Your task to perform on an android device: change the clock display to analog Image 0: 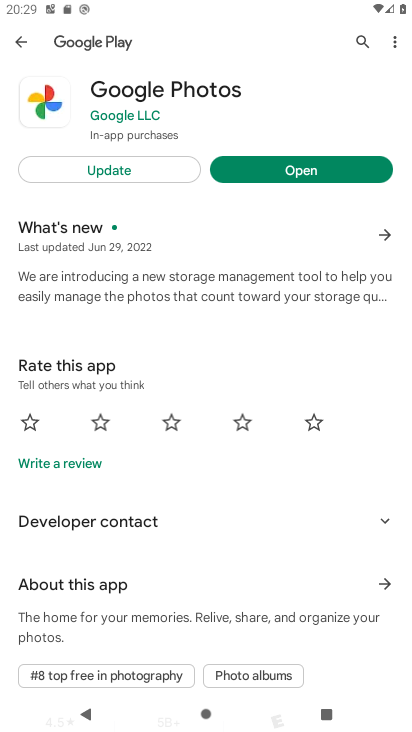
Step 0: press home button
Your task to perform on an android device: change the clock display to analog Image 1: 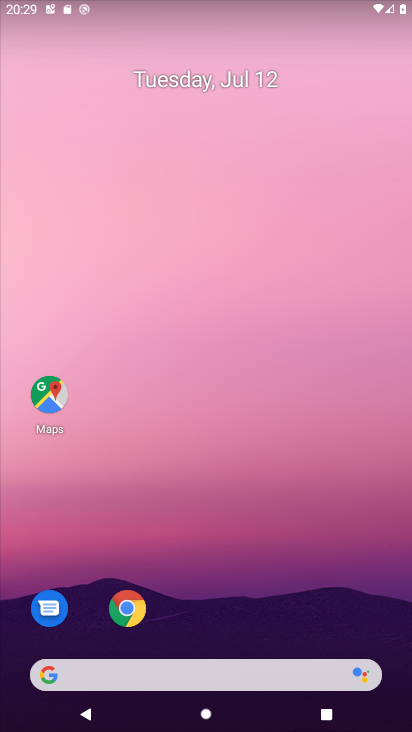
Step 1: drag from (192, 677) to (272, 278)
Your task to perform on an android device: change the clock display to analog Image 2: 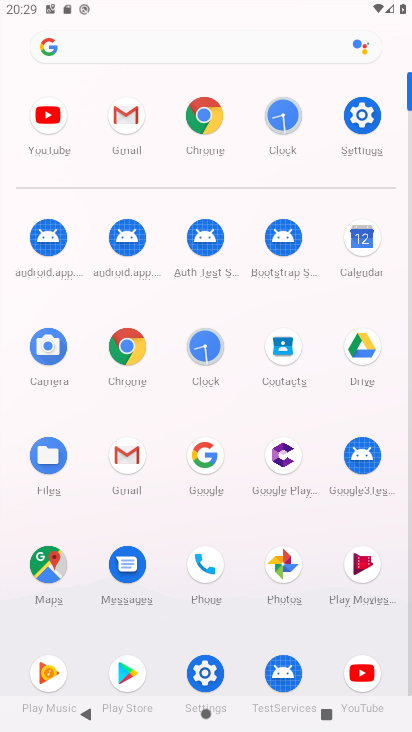
Step 2: click (282, 123)
Your task to perform on an android device: change the clock display to analog Image 3: 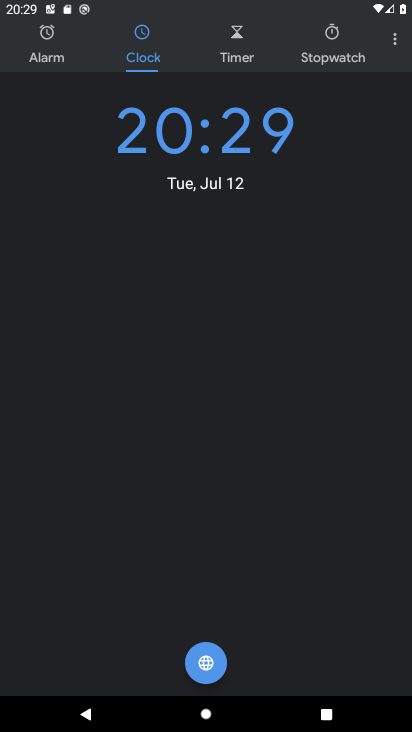
Step 3: click (396, 43)
Your task to perform on an android device: change the clock display to analog Image 4: 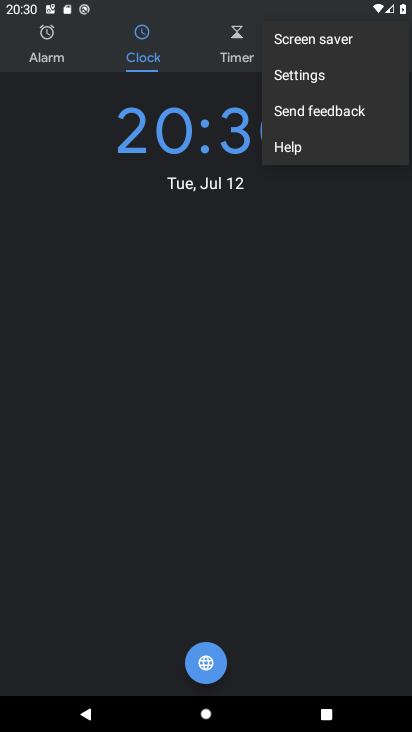
Step 4: click (319, 72)
Your task to perform on an android device: change the clock display to analog Image 5: 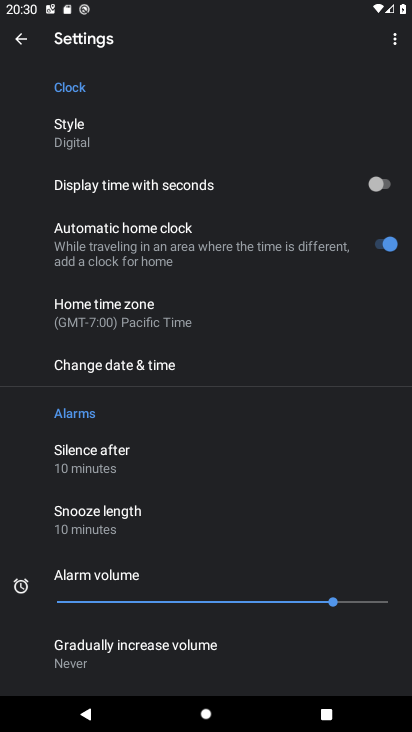
Step 5: click (85, 131)
Your task to perform on an android device: change the clock display to analog Image 6: 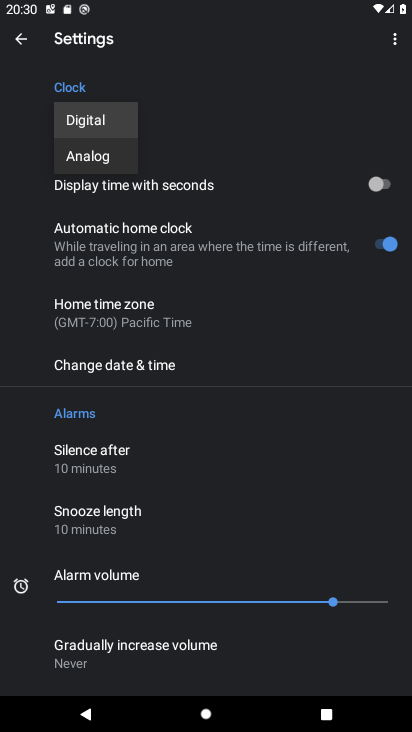
Step 6: click (102, 150)
Your task to perform on an android device: change the clock display to analog Image 7: 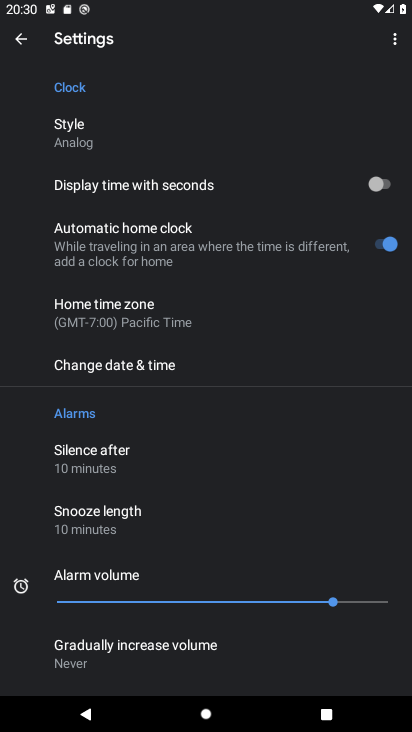
Step 7: task complete